Your task to perform on an android device: Search for Mexican restaurants on Maps Image 0: 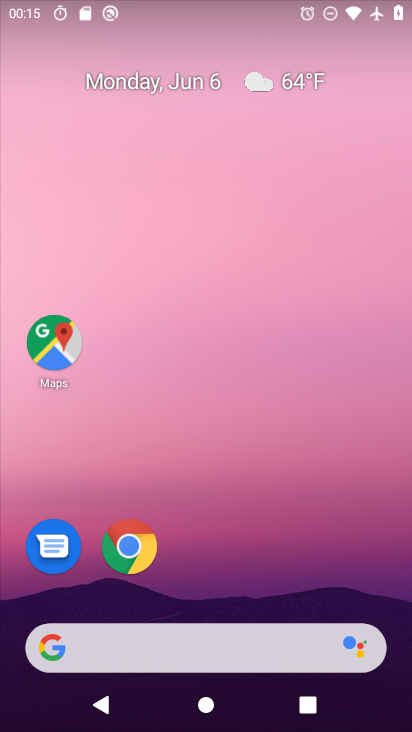
Step 0: drag from (181, 585) to (208, 122)
Your task to perform on an android device: Search for Mexican restaurants on Maps Image 1: 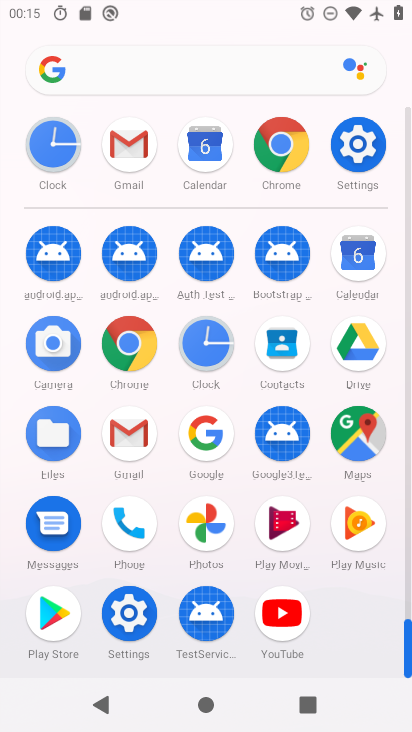
Step 1: click (345, 440)
Your task to perform on an android device: Search for Mexican restaurants on Maps Image 2: 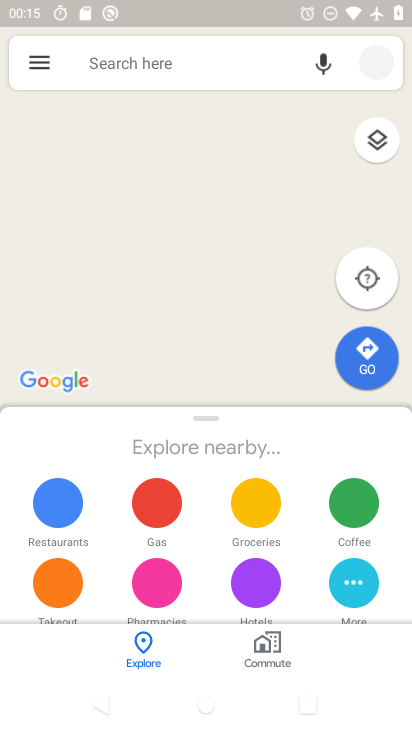
Step 2: click (156, 68)
Your task to perform on an android device: Search for Mexican restaurants on Maps Image 3: 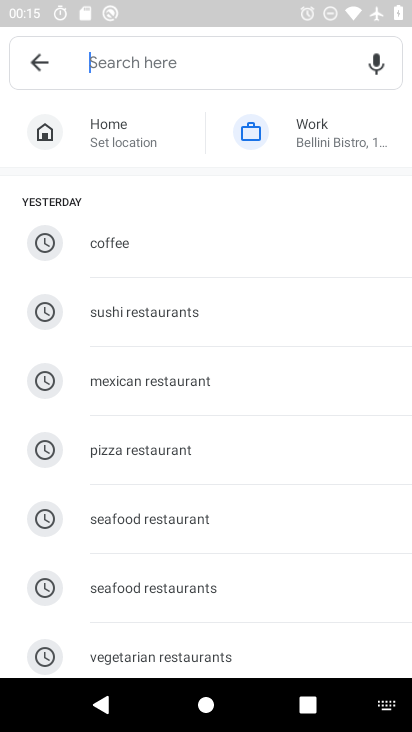
Step 3: click (146, 373)
Your task to perform on an android device: Search for Mexican restaurants on Maps Image 4: 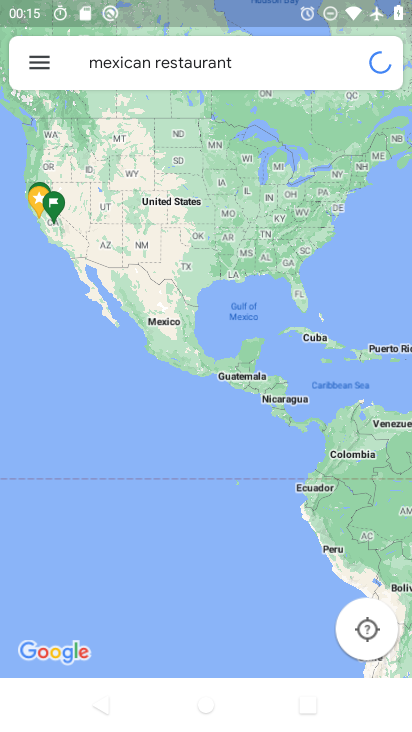
Step 4: task complete